Your task to perform on an android device: Open CNN.com Image 0: 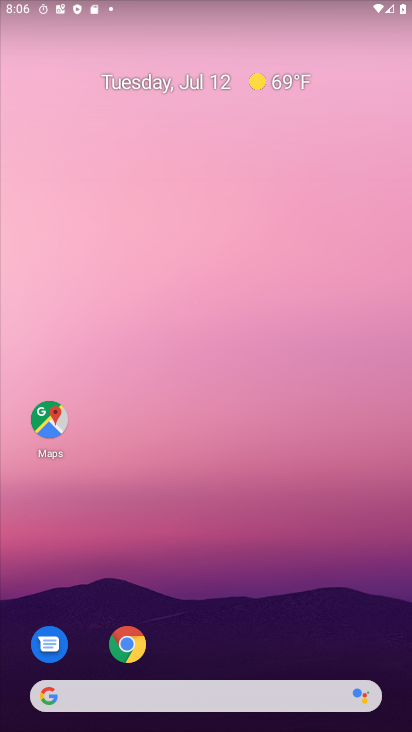
Step 0: press home button
Your task to perform on an android device: Open CNN.com Image 1: 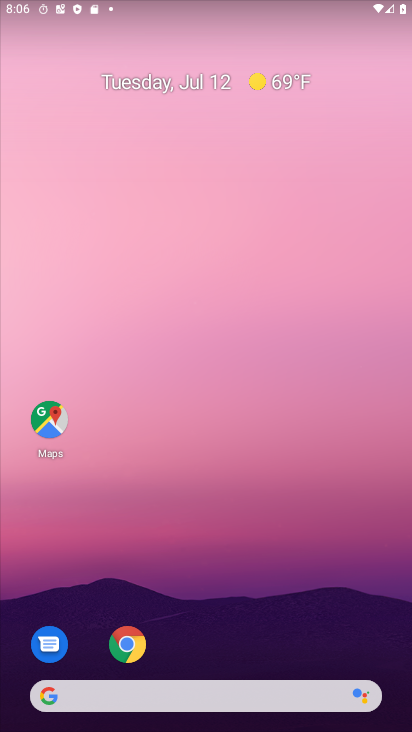
Step 1: drag from (178, 665) to (232, 40)
Your task to perform on an android device: Open CNN.com Image 2: 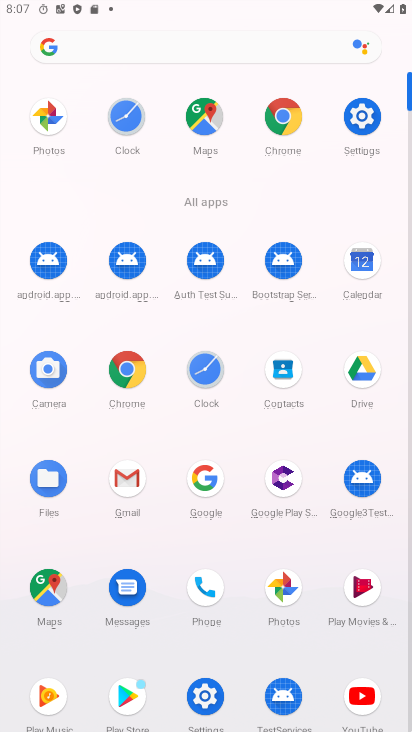
Step 2: click (286, 115)
Your task to perform on an android device: Open CNN.com Image 3: 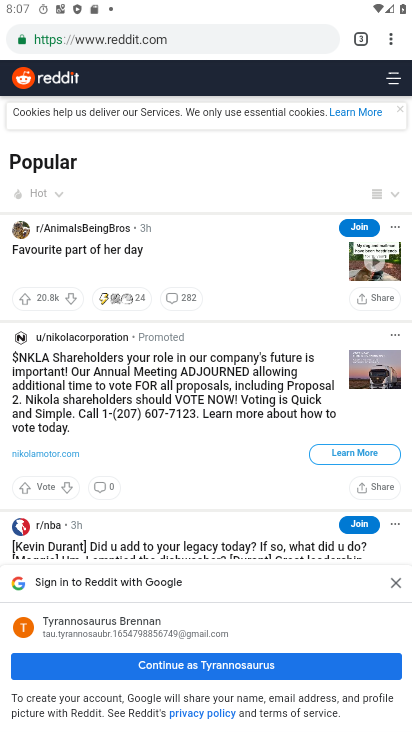
Step 3: click (360, 39)
Your task to perform on an android device: Open CNN.com Image 4: 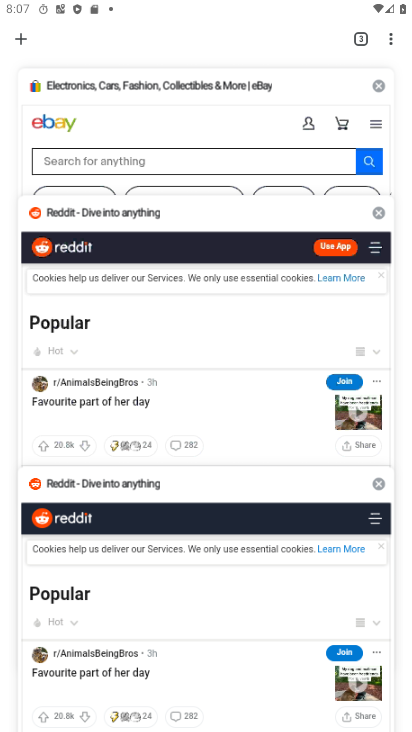
Step 4: click (23, 31)
Your task to perform on an android device: Open CNN.com Image 5: 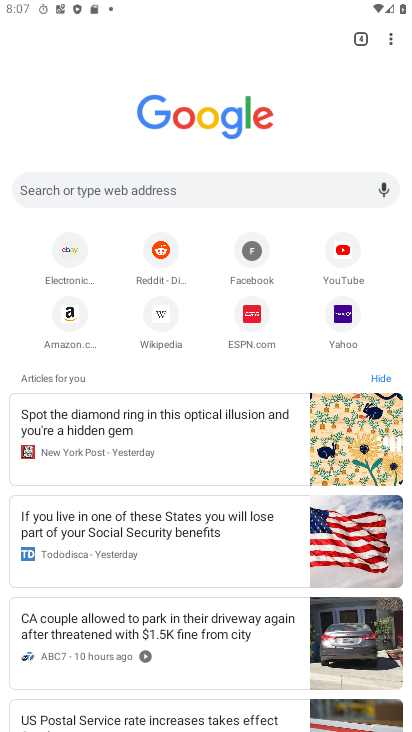
Step 5: click (77, 182)
Your task to perform on an android device: Open CNN.com Image 6: 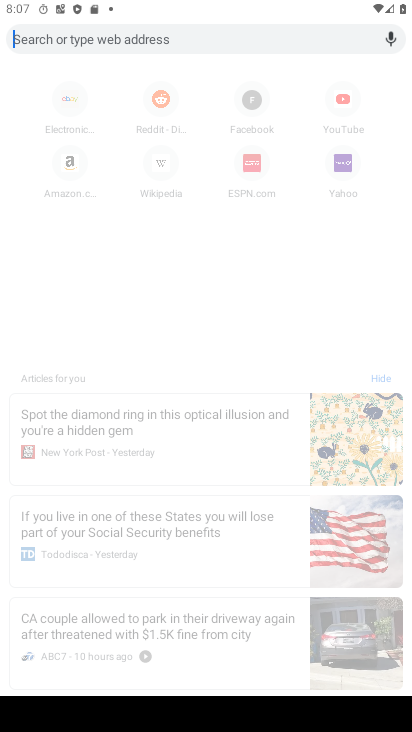
Step 6: type "cnn.com"
Your task to perform on an android device: Open CNN.com Image 7: 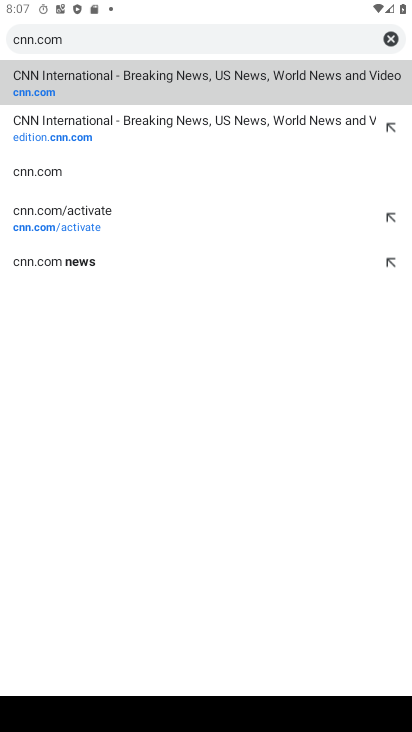
Step 7: click (64, 89)
Your task to perform on an android device: Open CNN.com Image 8: 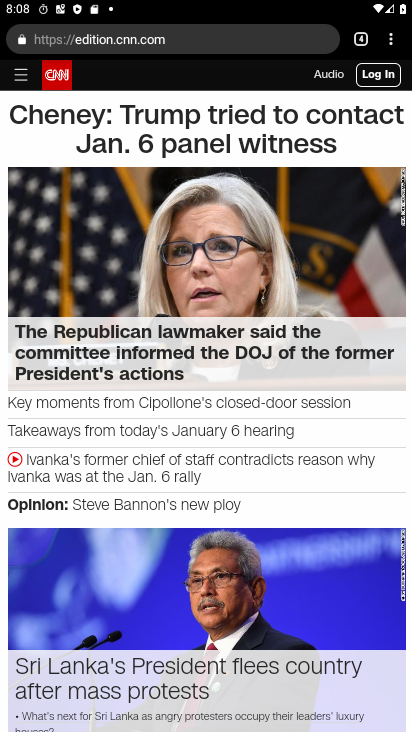
Step 8: task complete